Your task to perform on an android device: turn off priority inbox in the gmail app Image 0: 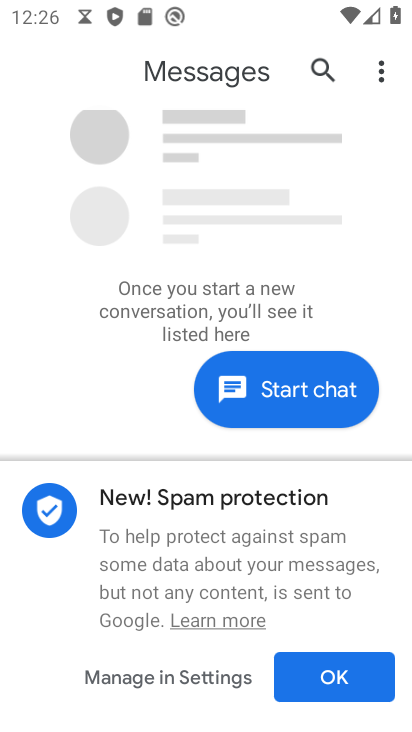
Step 0: press home button
Your task to perform on an android device: turn off priority inbox in the gmail app Image 1: 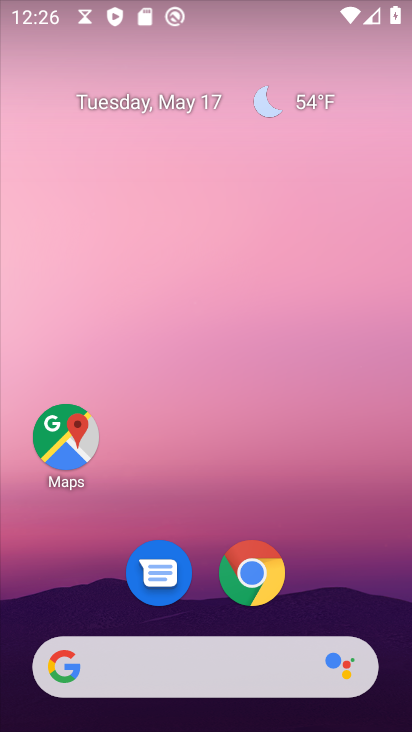
Step 1: drag from (204, 560) to (235, 24)
Your task to perform on an android device: turn off priority inbox in the gmail app Image 2: 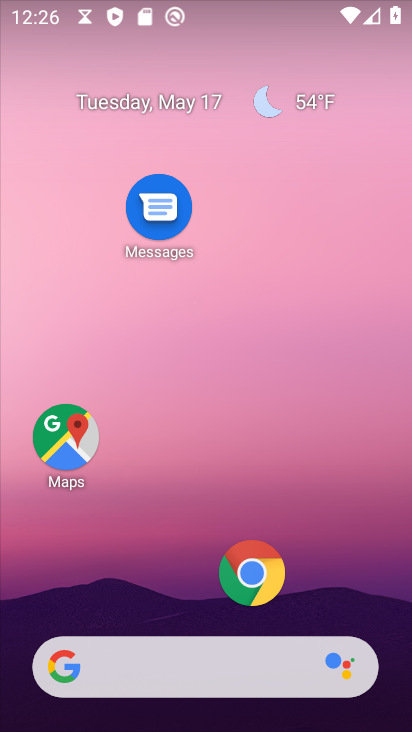
Step 2: drag from (337, 576) to (340, 63)
Your task to perform on an android device: turn off priority inbox in the gmail app Image 3: 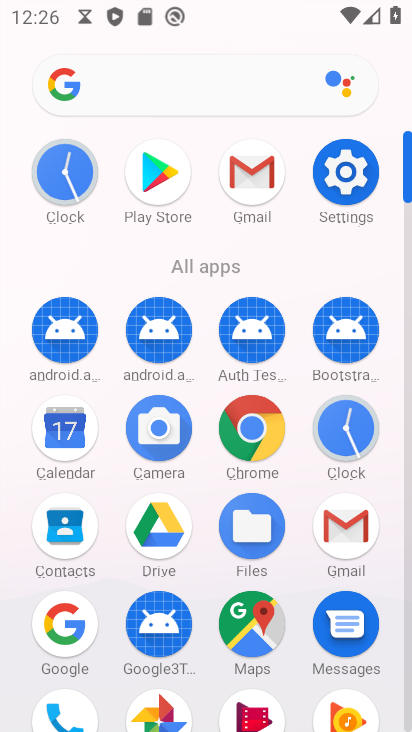
Step 3: click (253, 167)
Your task to perform on an android device: turn off priority inbox in the gmail app Image 4: 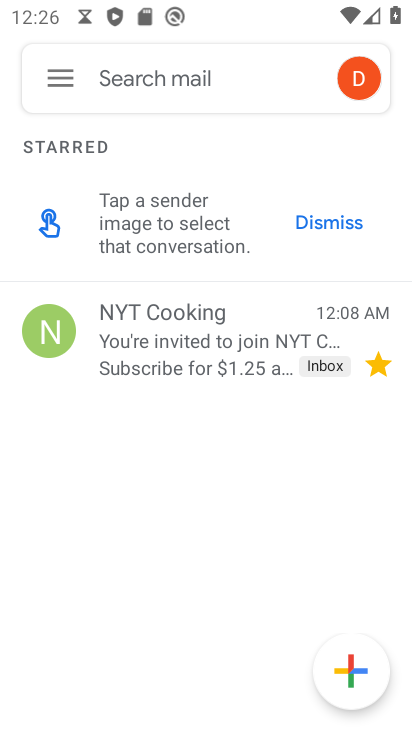
Step 4: click (68, 79)
Your task to perform on an android device: turn off priority inbox in the gmail app Image 5: 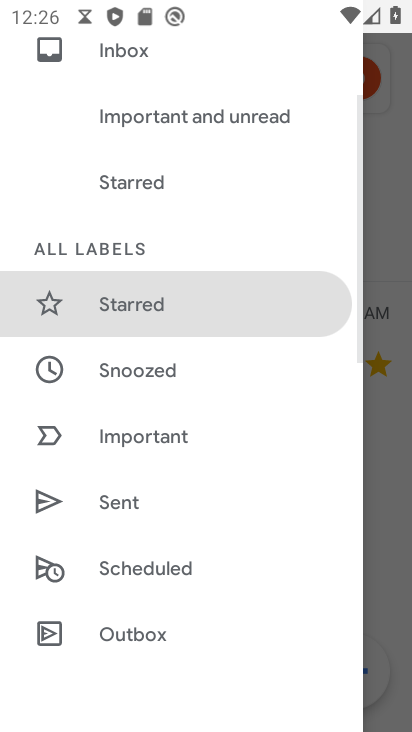
Step 5: drag from (179, 615) to (186, 121)
Your task to perform on an android device: turn off priority inbox in the gmail app Image 6: 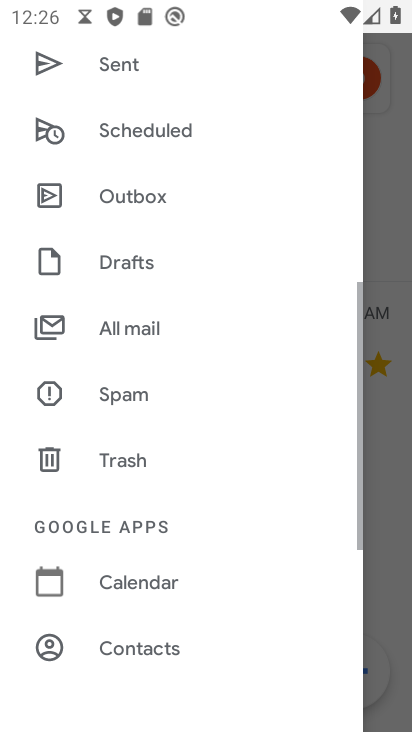
Step 6: click (186, 103)
Your task to perform on an android device: turn off priority inbox in the gmail app Image 7: 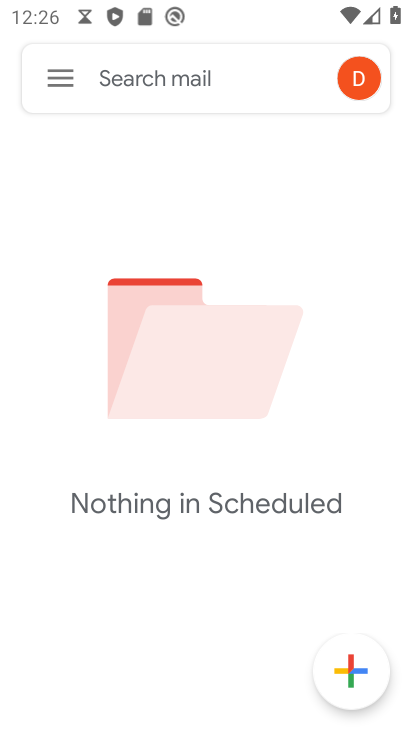
Step 7: click (55, 67)
Your task to perform on an android device: turn off priority inbox in the gmail app Image 8: 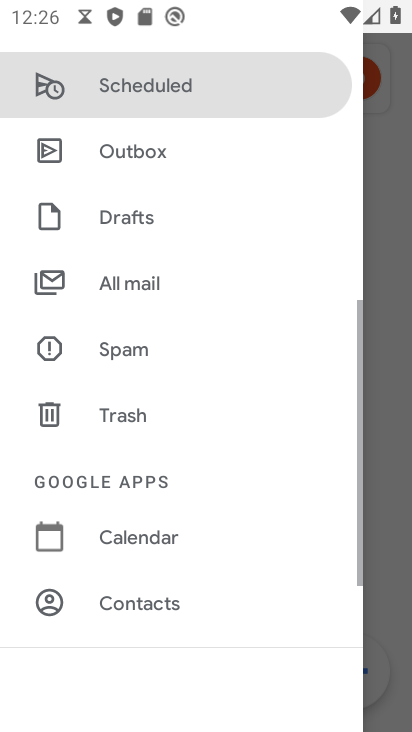
Step 8: drag from (178, 591) to (174, 158)
Your task to perform on an android device: turn off priority inbox in the gmail app Image 9: 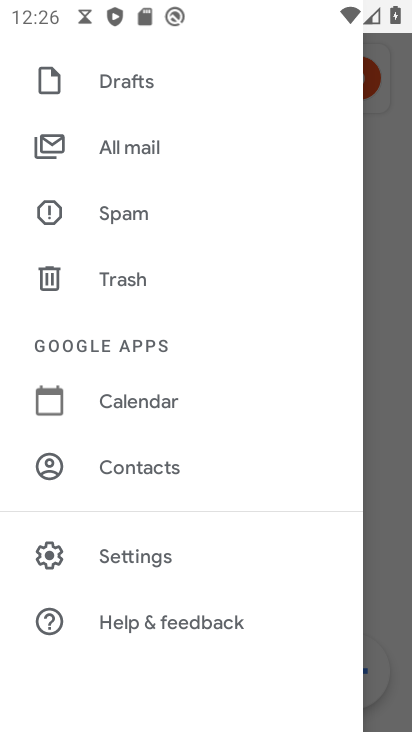
Step 9: click (182, 552)
Your task to perform on an android device: turn off priority inbox in the gmail app Image 10: 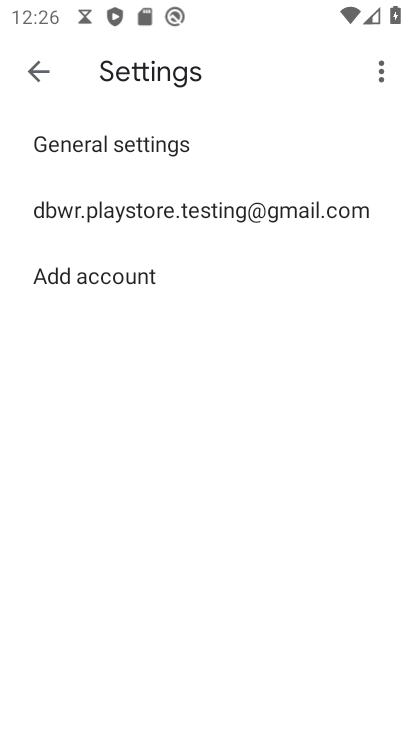
Step 10: click (200, 210)
Your task to perform on an android device: turn off priority inbox in the gmail app Image 11: 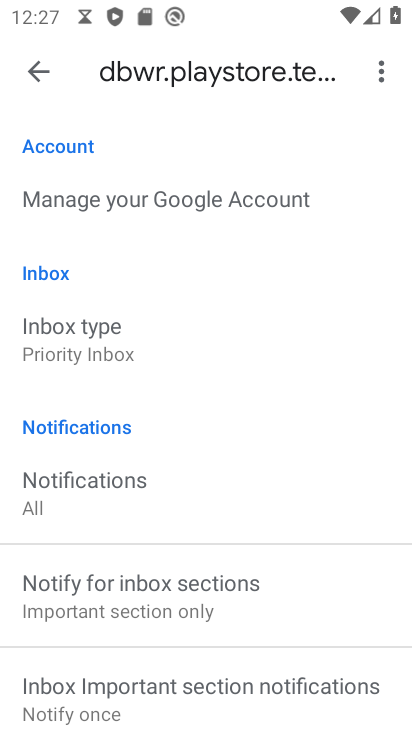
Step 11: click (151, 331)
Your task to perform on an android device: turn off priority inbox in the gmail app Image 12: 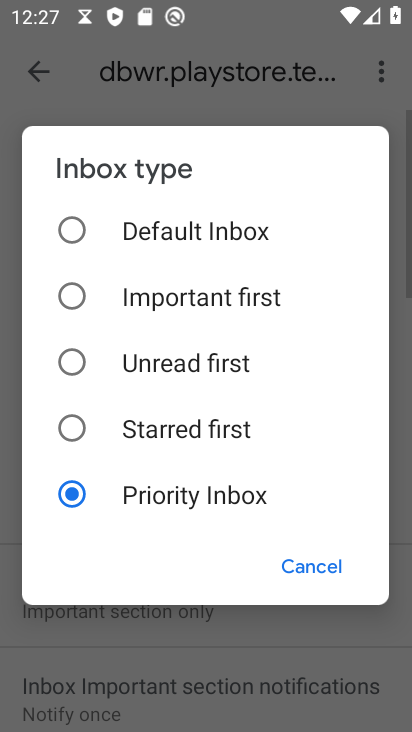
Step 12: click (70, 224)
Your task to perform on an android device: turn off priority inbox in the gmail app Image 13: 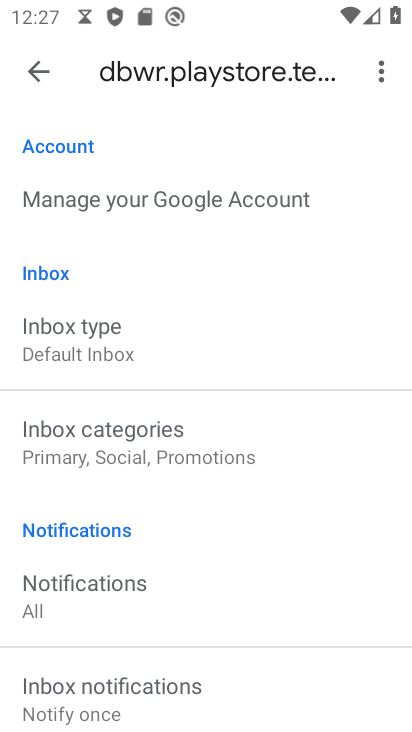
Step 13: task complete